Your task to perform on an android device: Open wifi settings Image 0: 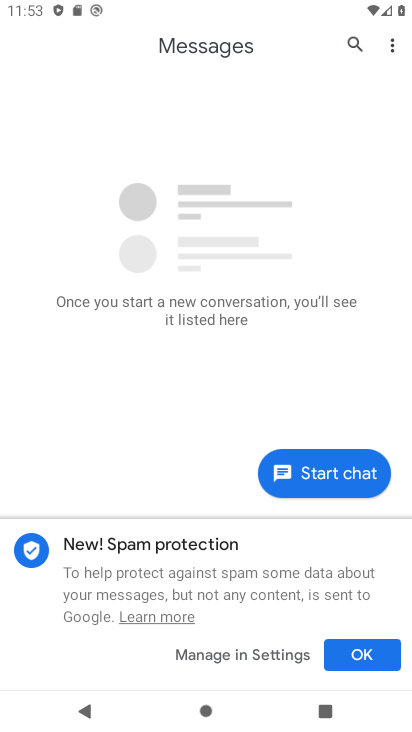
Step 0: press back button
Your task to perform on an android device: Open wifi settings Image 1: 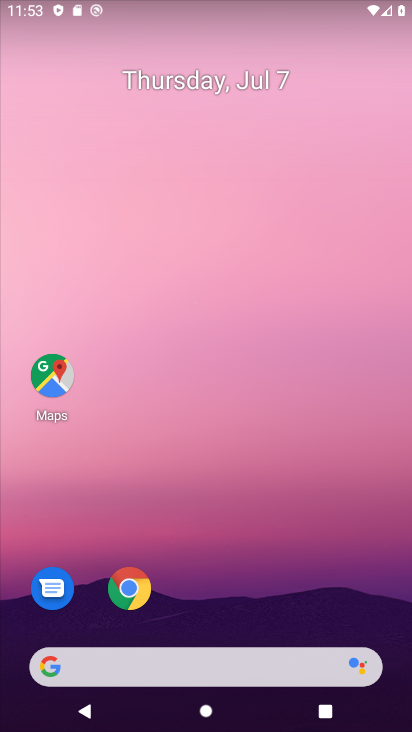
Step 1: drag from (225, 630) to (165, 183)
Your task to perform on an android device: Open wifi settings Image 2: 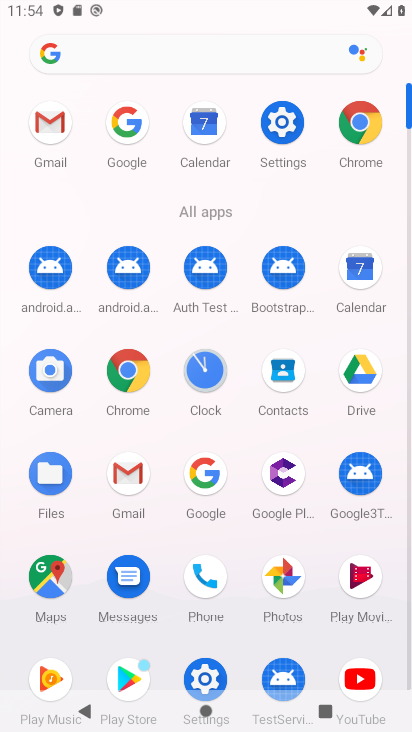
Step 2: click (272, 141)
Your task to perform on an android device: Open wifi settings Image 3: 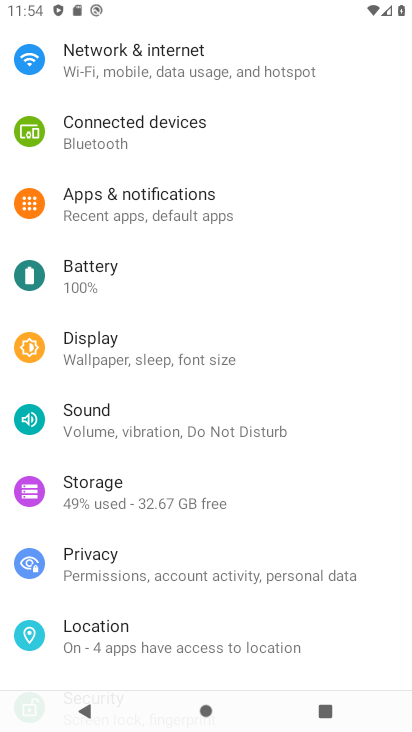
Step 3: click (205, 57)
Your task to perform on an android device: Open wifi settings Image 4: 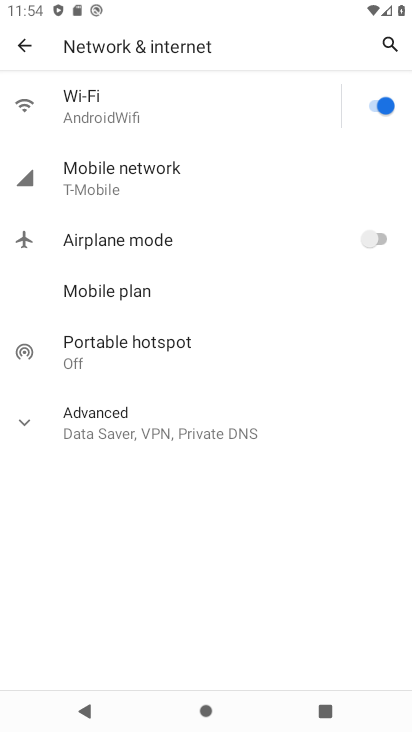
Step 4: click (115, 99)
Your task to perform on an android device: Open wifi settings Image 5: 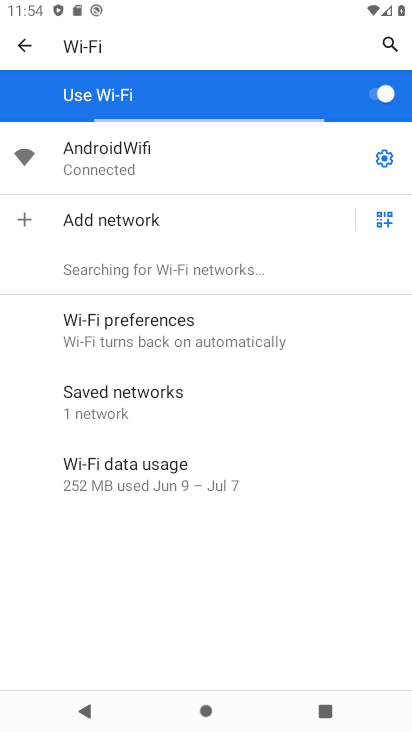
Step 5: task complete